Your task to perform on an android device: Clear the cart on amazon.com. Add razer blackwidow to the cart on amazon.com Image 0: 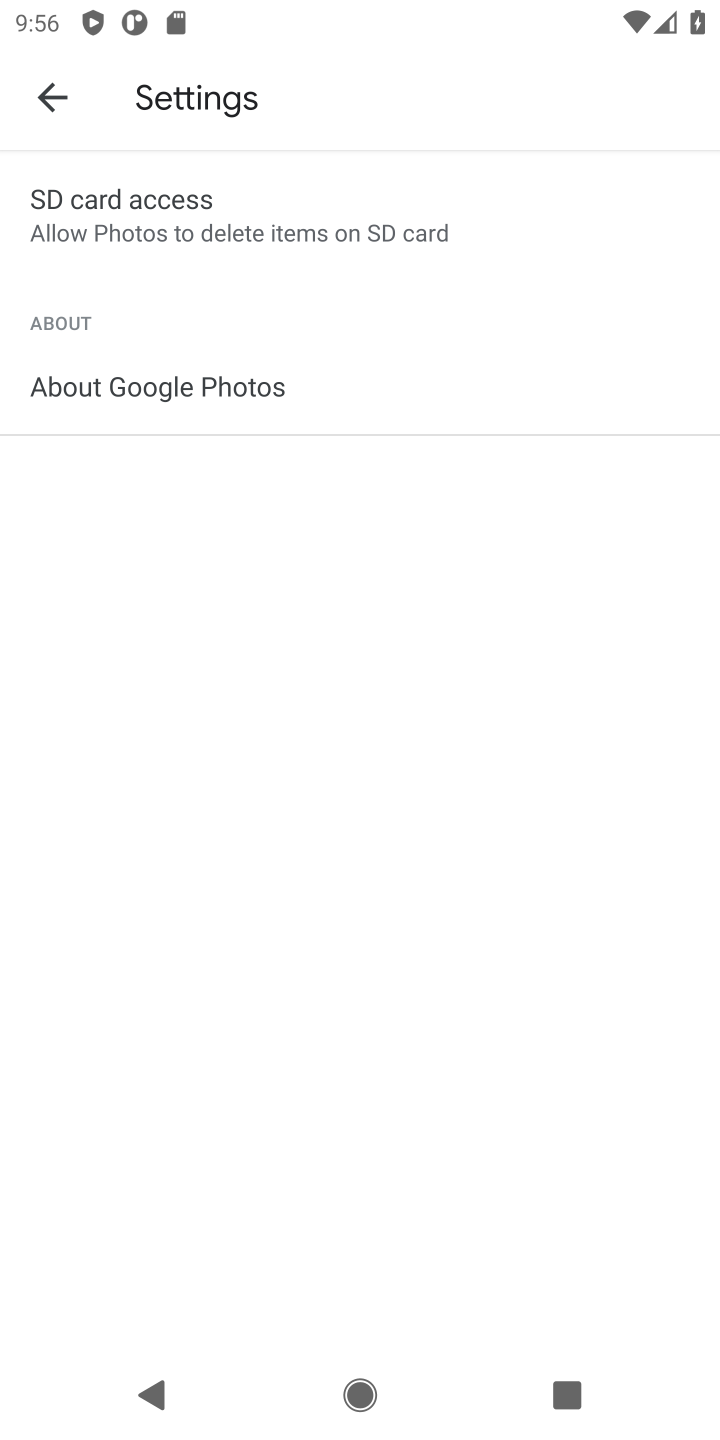
Step 0: press home button
Your task to perform on an android device: Clear the cart on amazon.com. Add razer blackwidow to the cart on amazon.com Image 1: 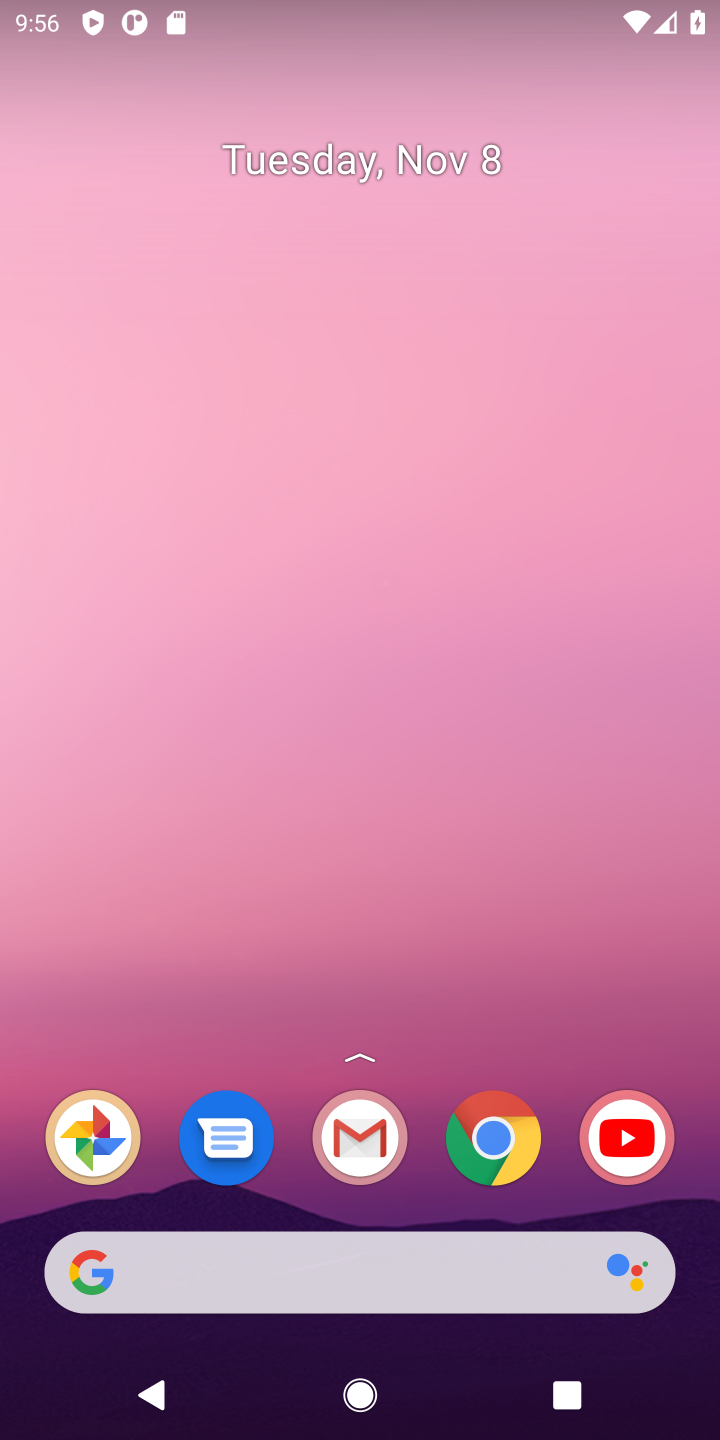
Step 1: click (498, 1141)
Your task to perform on an android device: Clear the cart on amazon.com. Add razer blackwidow to the cart on amazon.com Image 2: 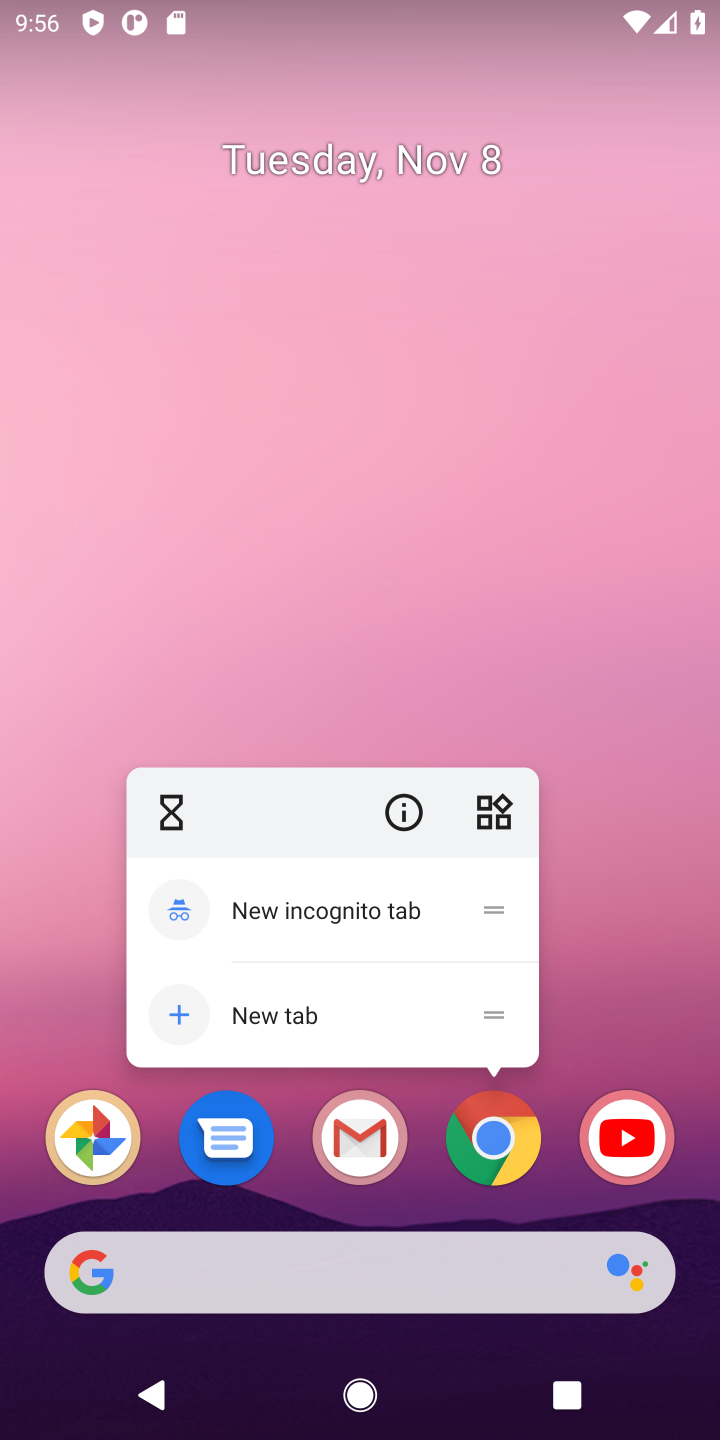
Step 2: click (504, 1135)
Your task to perform on an android device: Clear the cart on amazon.com. Add razer blackwidow to the cart on amazon.com Image 3: 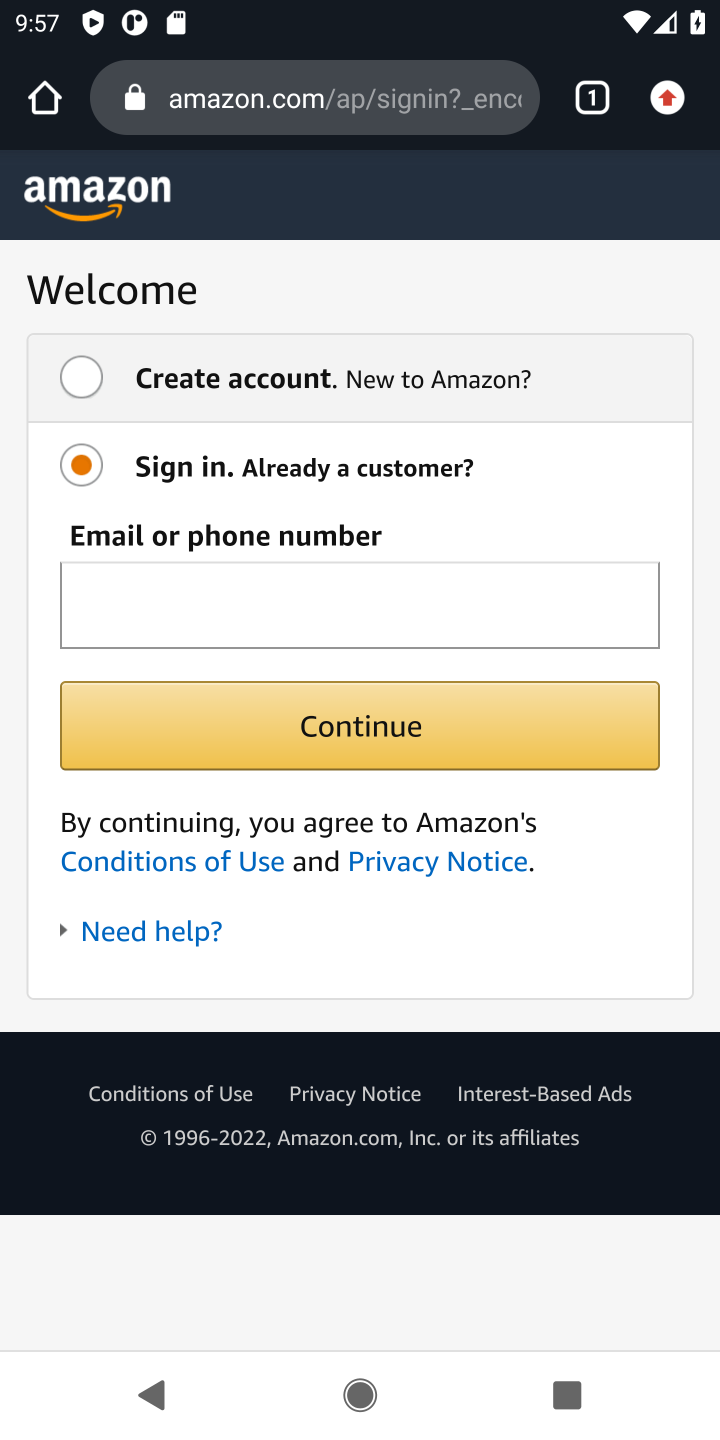
Step 3: press back button
Your task to perform on an android device: Clear the cart on amazon.com. Add razer blackwidow to the cart on amazon.com Image 4: 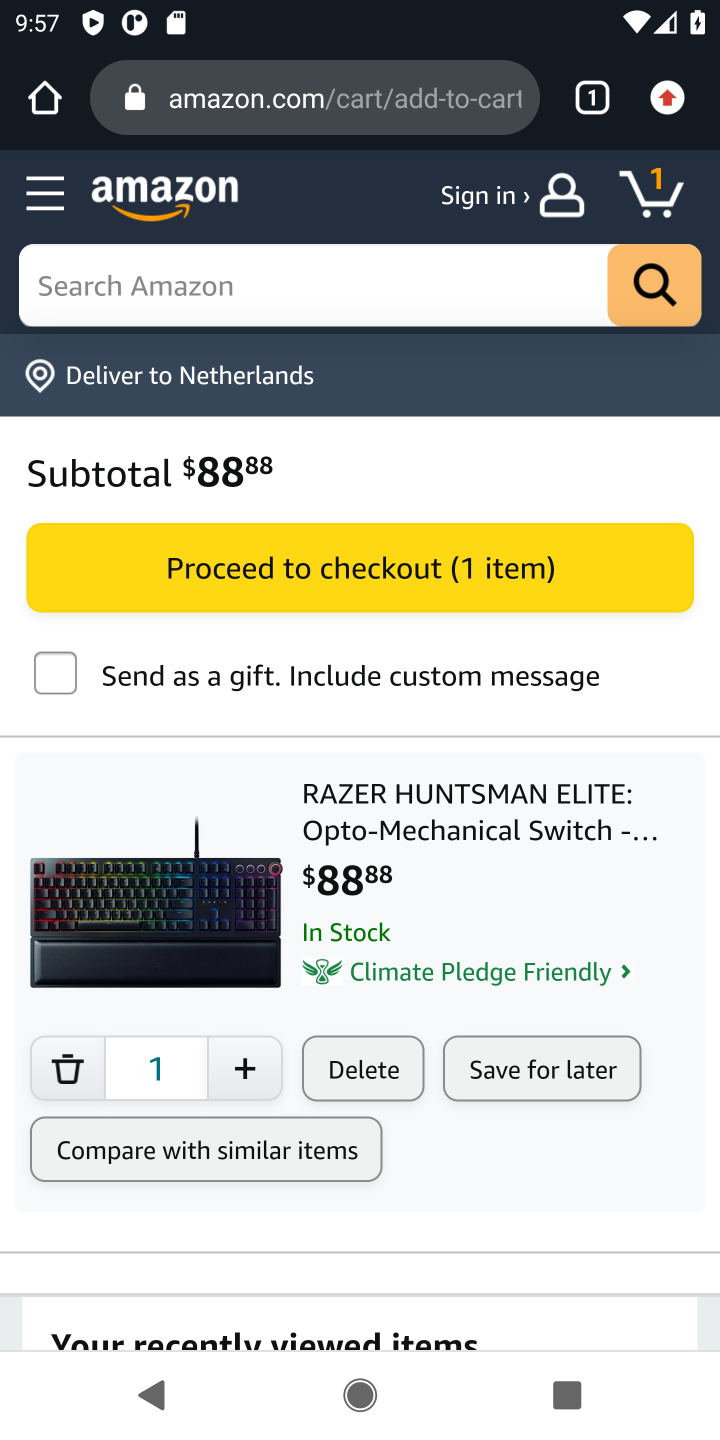
Step 4: click (666, 186)
Your task to perform on an android device: Clear the cart on amazon.com. Add razer blackwidow to the cart on amazon.com Image 5: 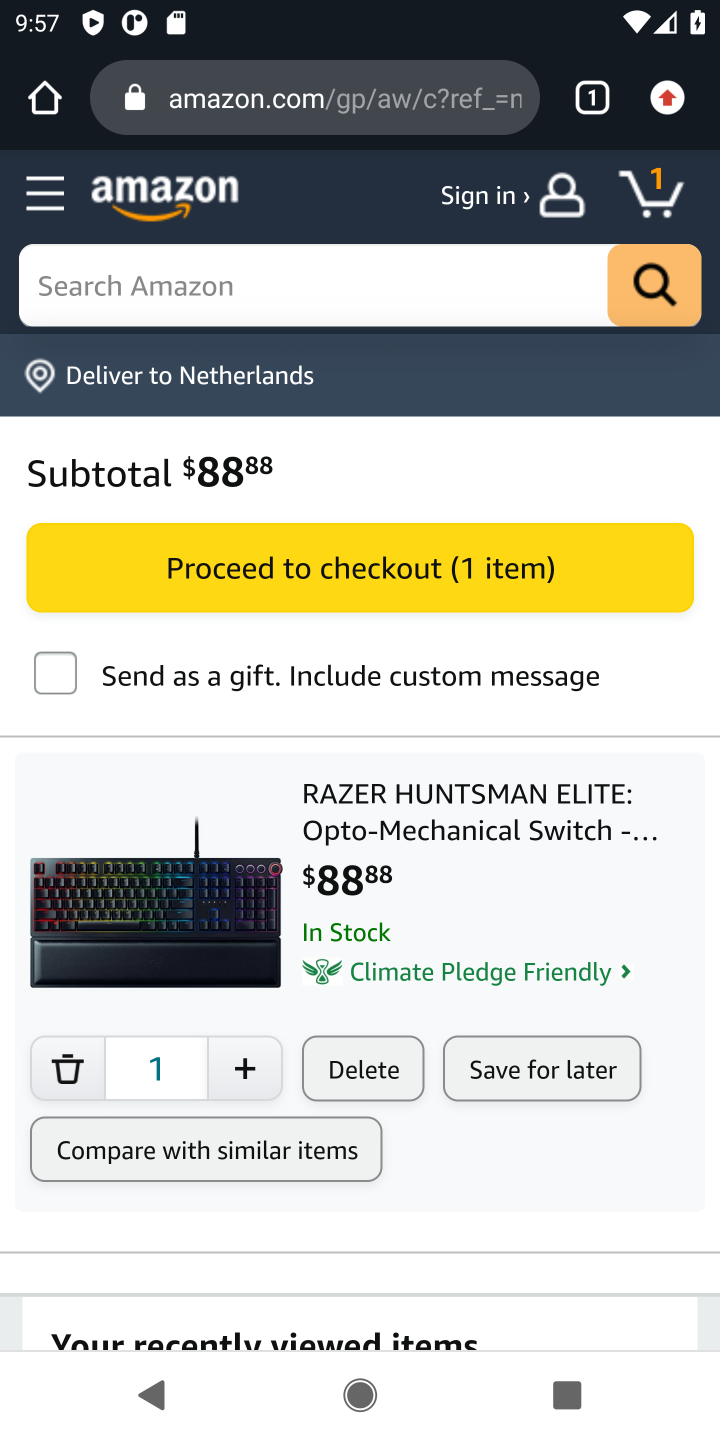
Step 5: click (353, 1067)
Your task to perform on an android device: Clear the cart on amazon.com. Add razer blackwidow to the cart on amazon.com Image 6: 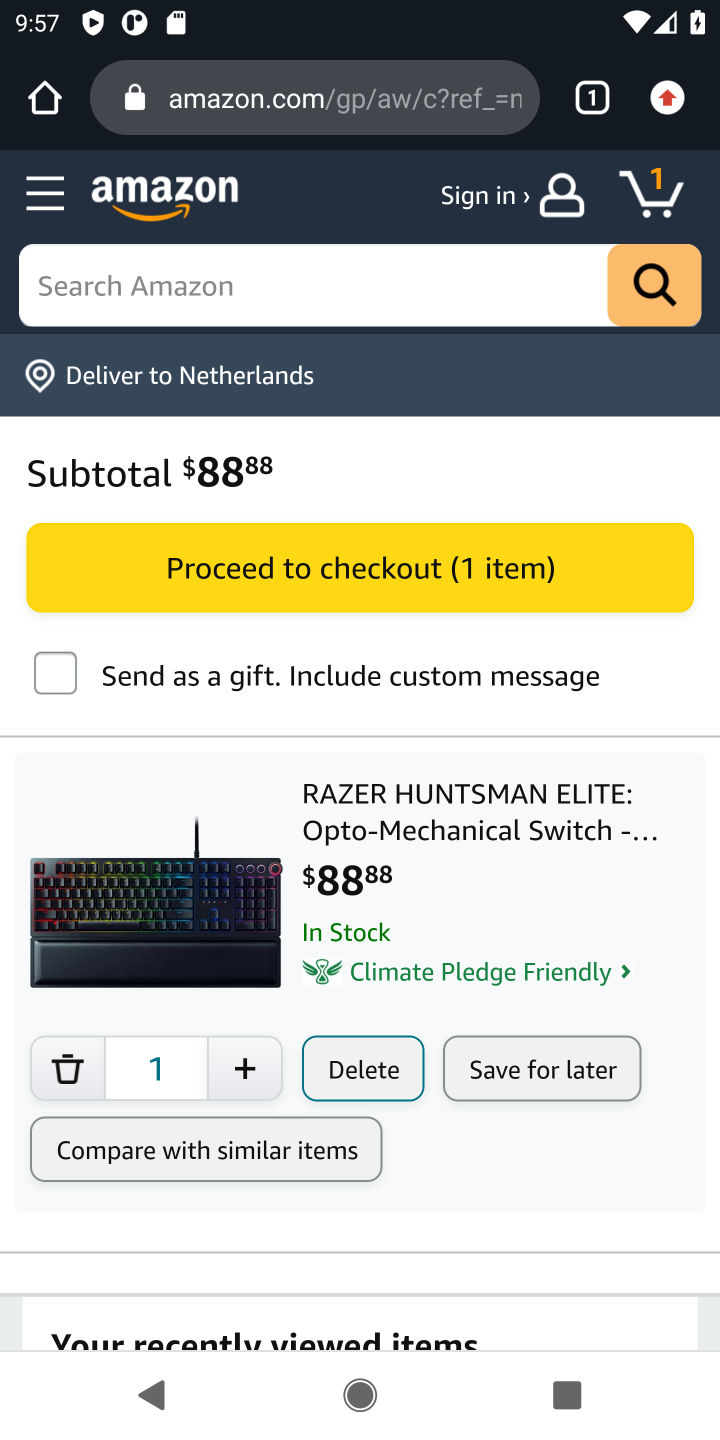
Step 6: click (364, 1064)
Your task to perform on an android device: Clear the cart on amazon.com. Add razer blackwidow to the cart on amazon.com Image 7: 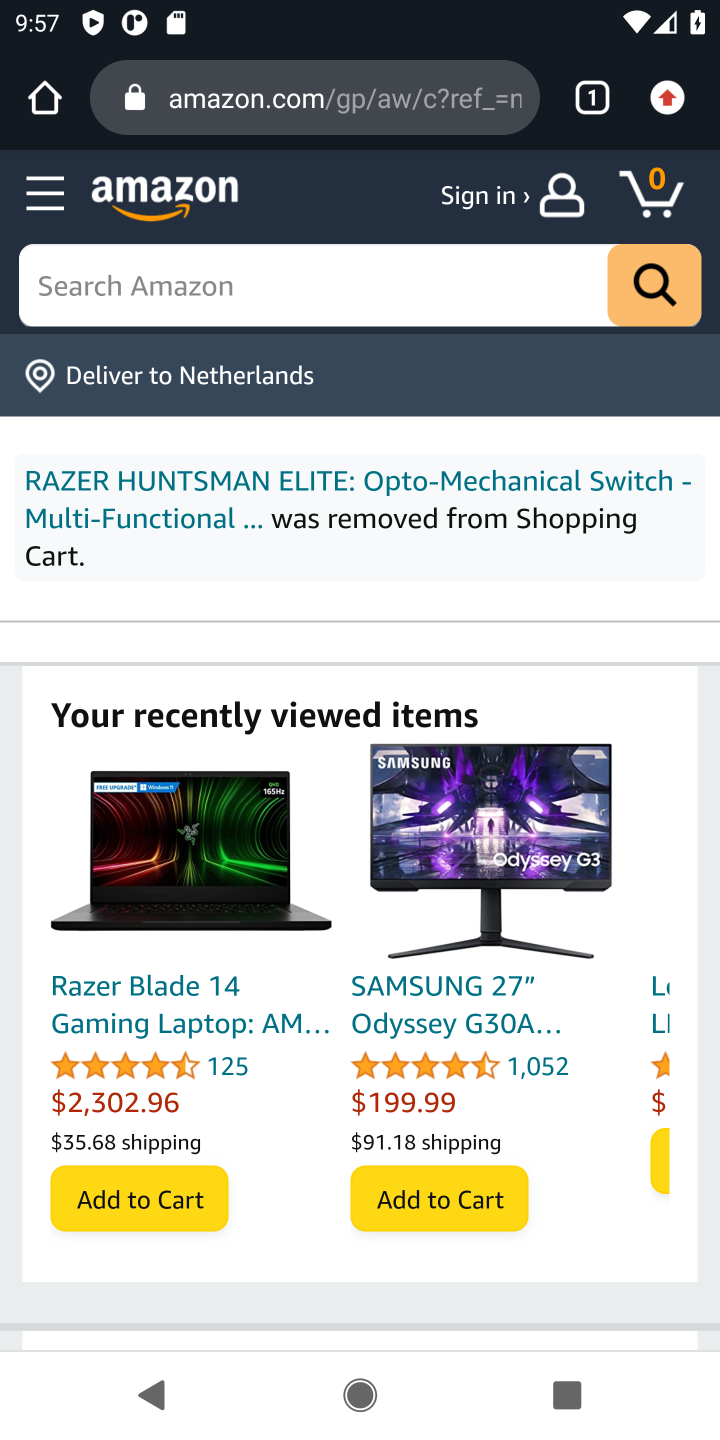
Step 7: click (333, 273)
Your task to perform on an android device: Clear the cart on amazon.com. Add razer blackwidow to the cart on amazon.com Image 8: 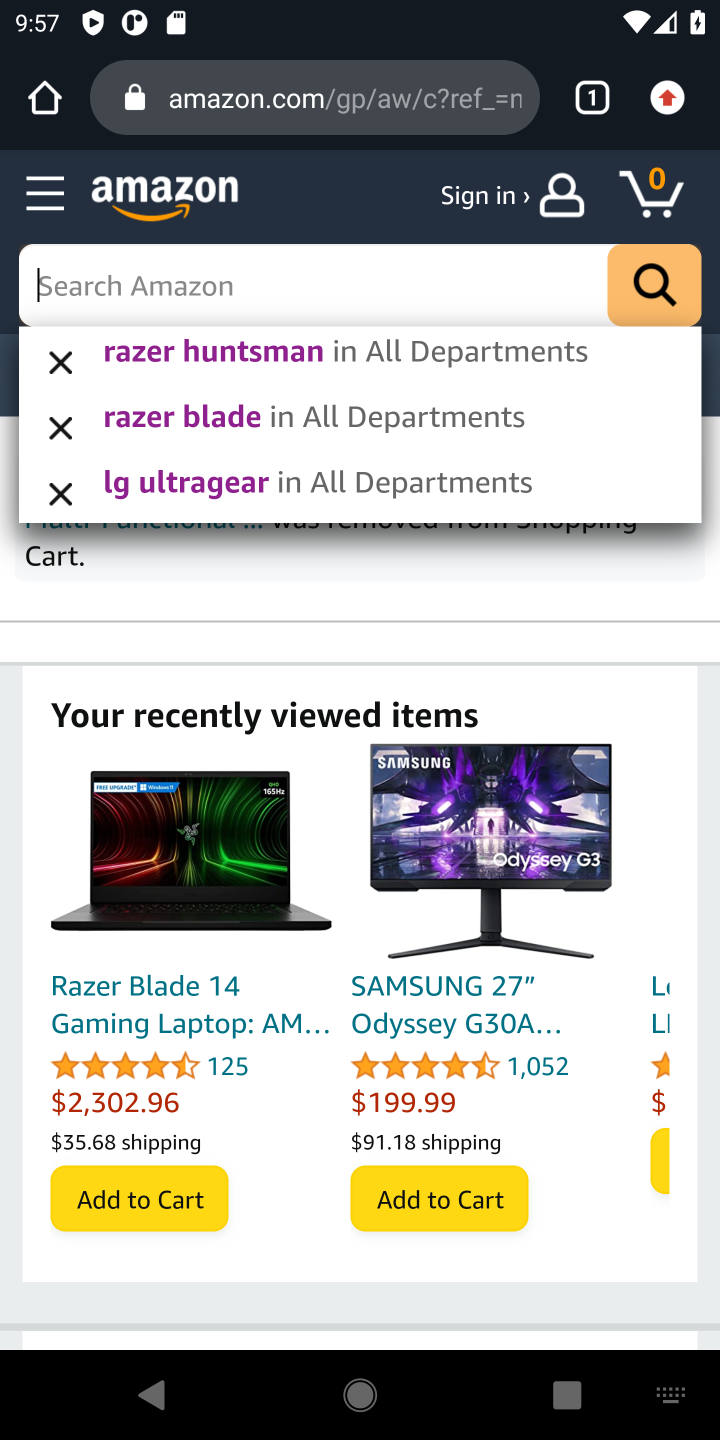
Step 8: type " razer blackwidow"
Your task to perform on an android device: Clear the cart on amazon.com. Add razer blackwidow to the cart on amazon.com Image 9: 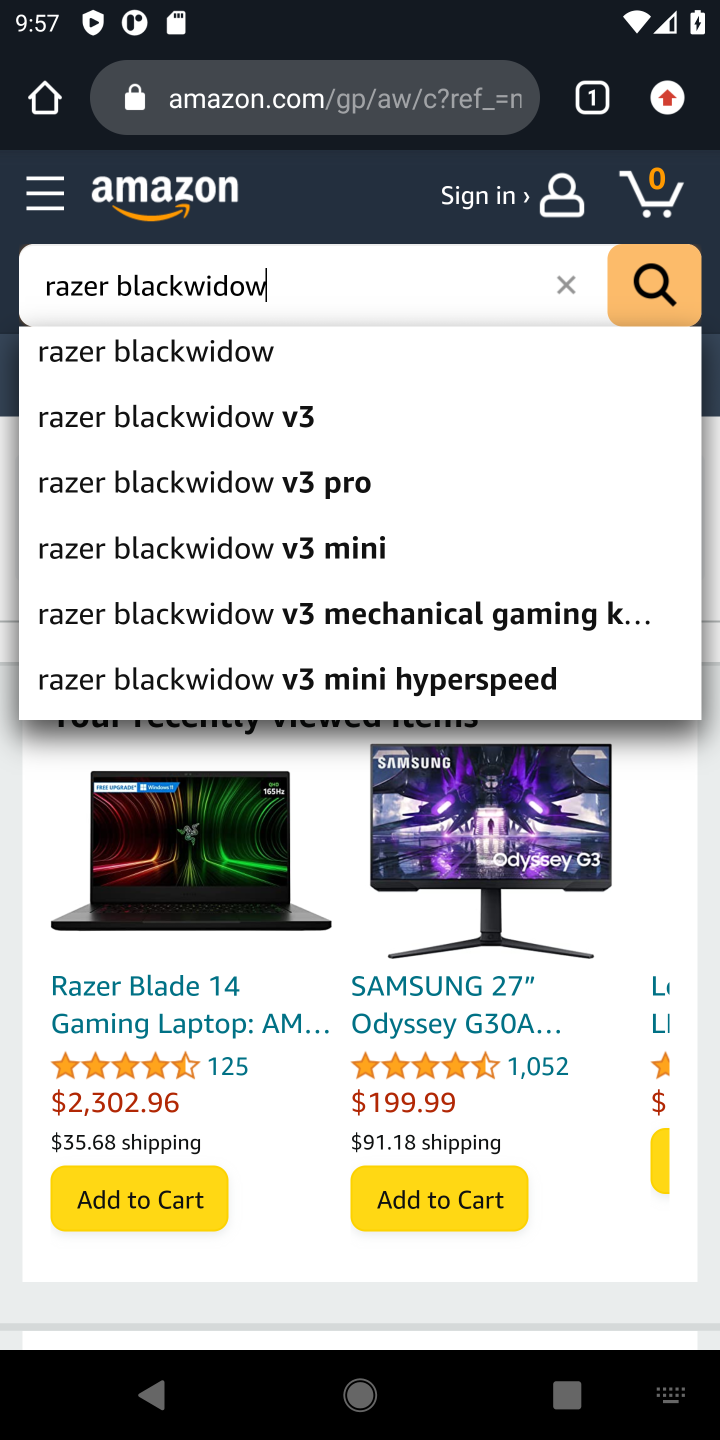
Step 9: press enter
Your task to perform on an android device: Clear the cart on amazon.com. Add razer blackwidow to the cart on amazon.com Image 10: 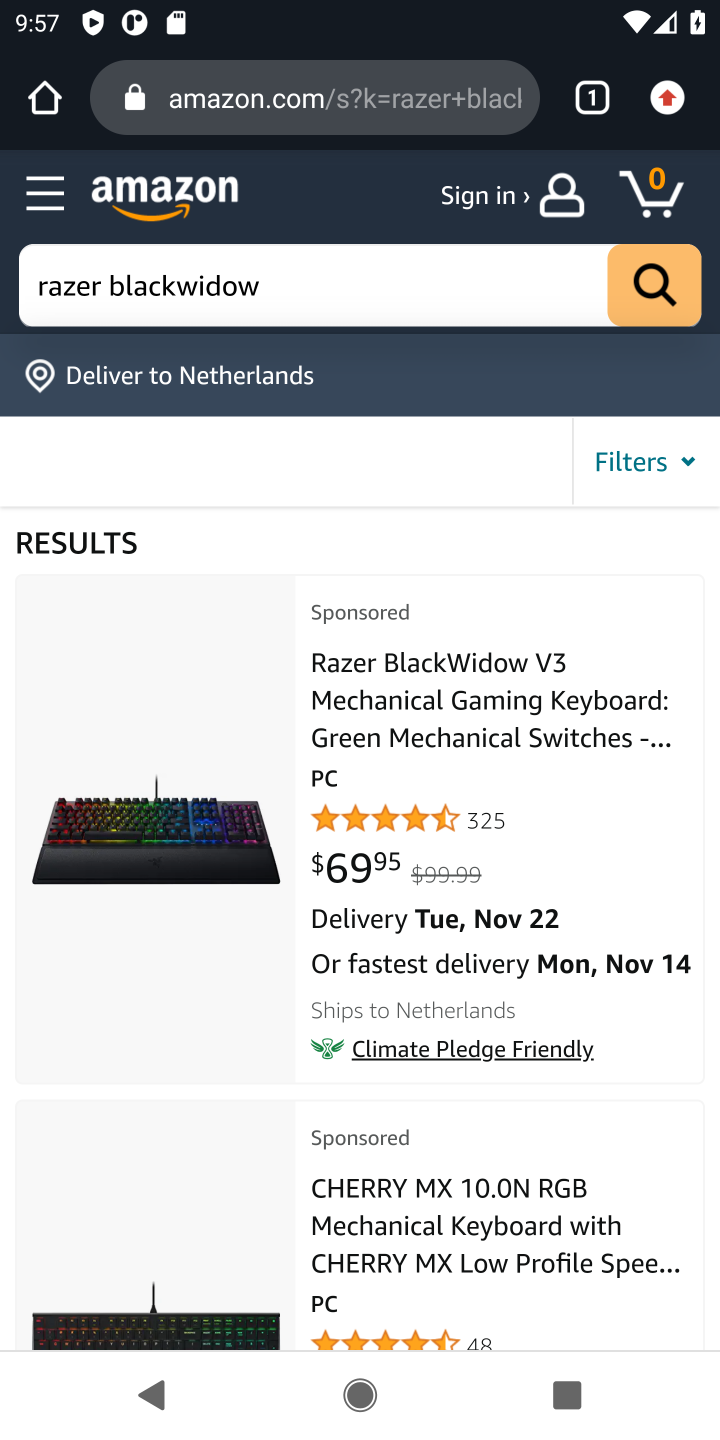
Step 10: click (490, 744)
Your task to perform on an android device: Clear the cart on amazon.com. Add razer blackwidow to the cart on amazon.com Image 11: 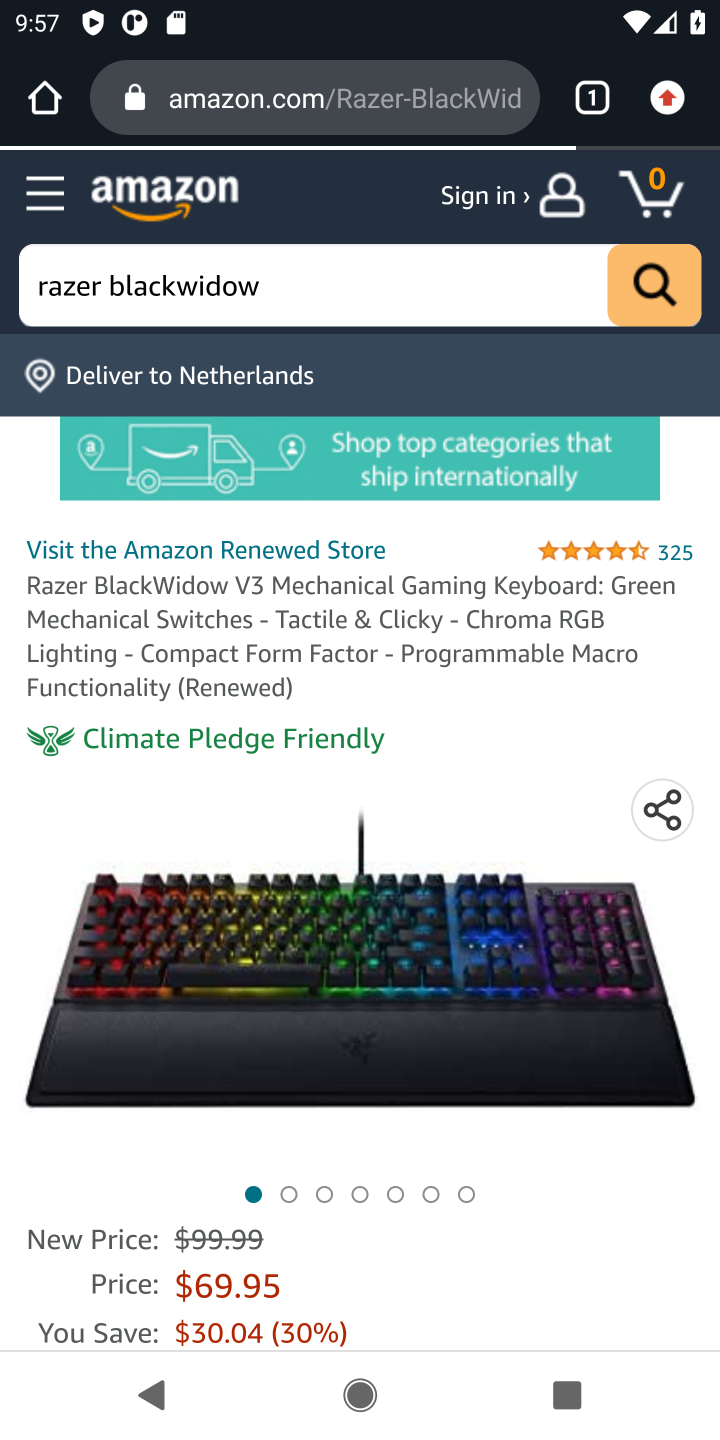
Step 11: drag from (507, 1116) to (508, 317)
Your task to perform on an android device: Clear the cart on amazon.com. Add razer blackwidow to the cart on amazon.com Image 12: 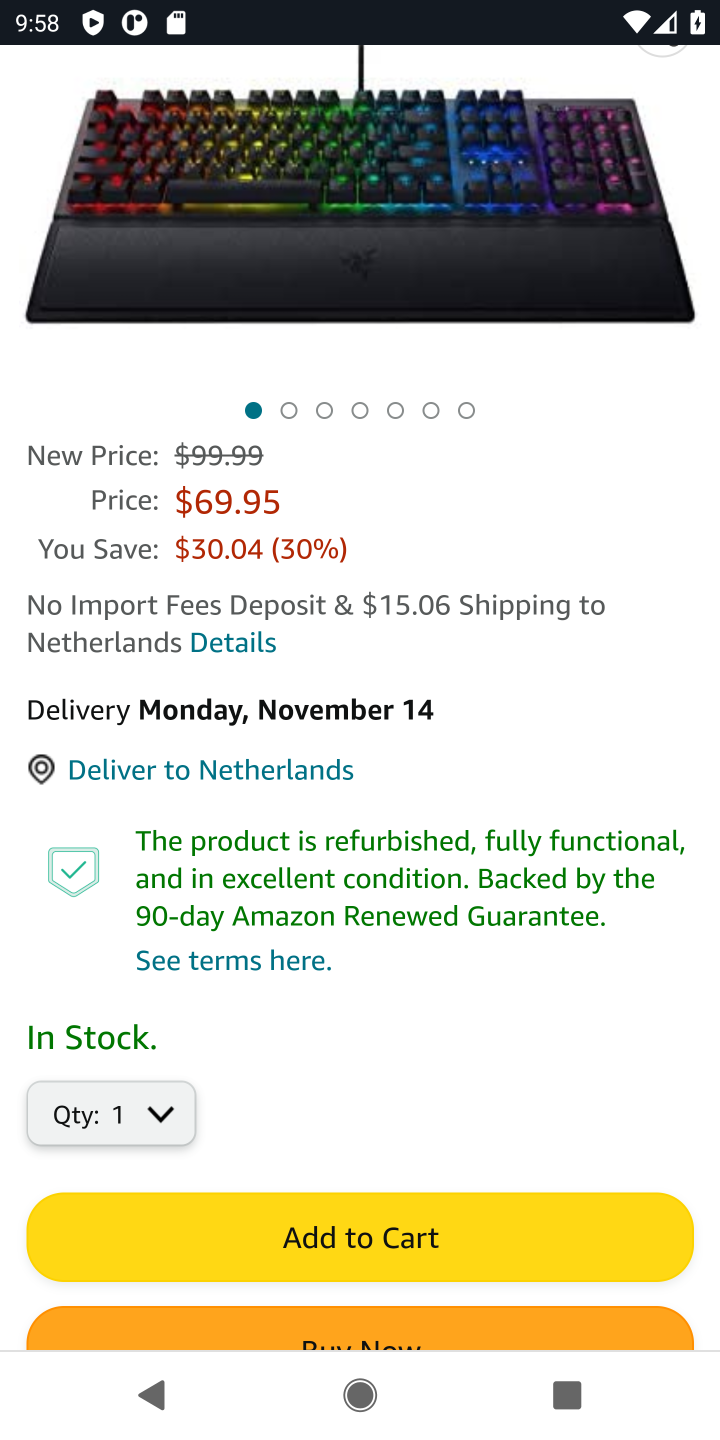
Step 12: click (345, 1229)
Your task to perform on an android device: Clear the cart on amazon.com. Add razer blackwidow to the cart on amazon.com Image 13: 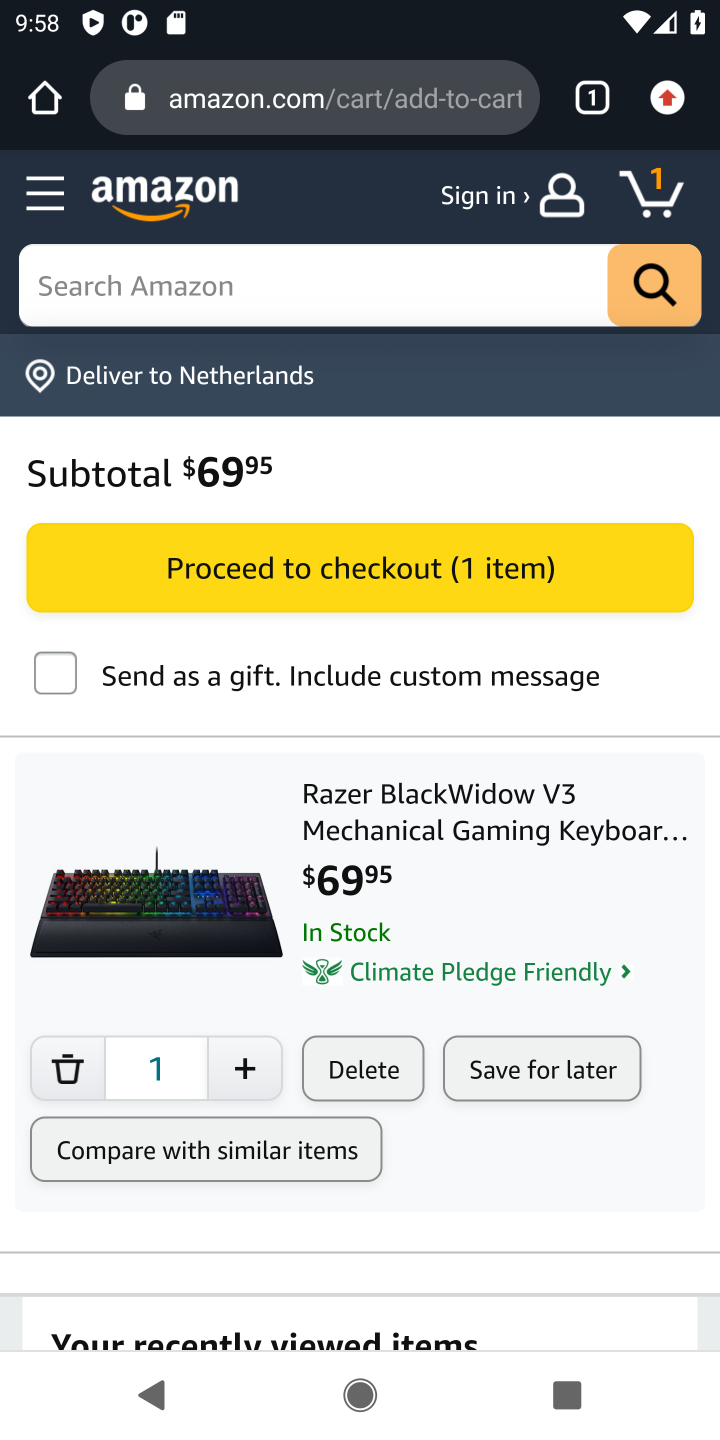
Step 13: task complete